Your task to perform on an android device: What's the weather? Image 0: 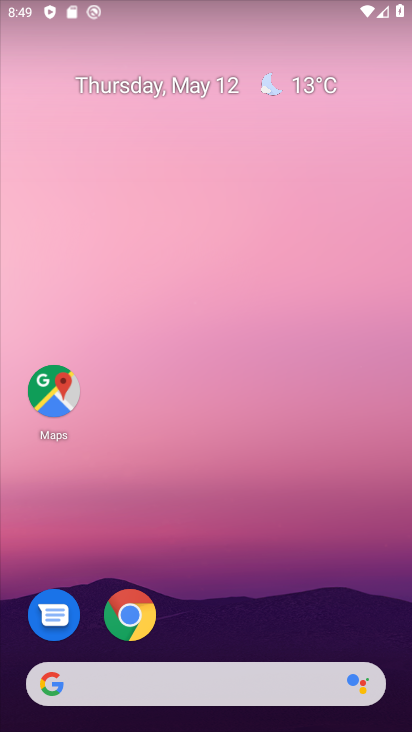
Step 0: drag from (198, 683) to (179, 5)
Your task to perform on an android device: What's the weather? Image 1: 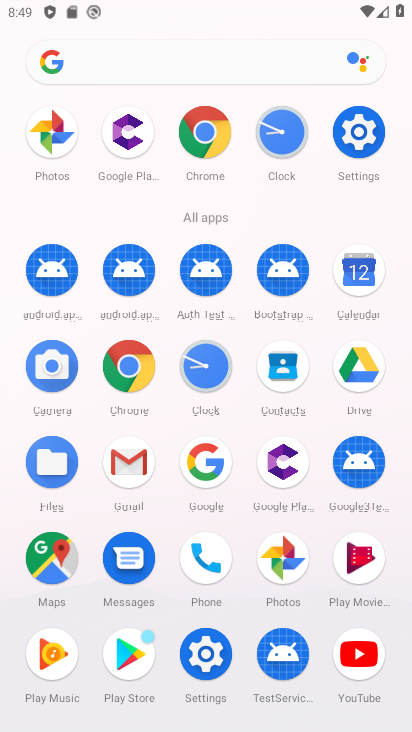
Step 1: click (196, 468)
Your task to perform on an android device: What's the weather? Image 2: 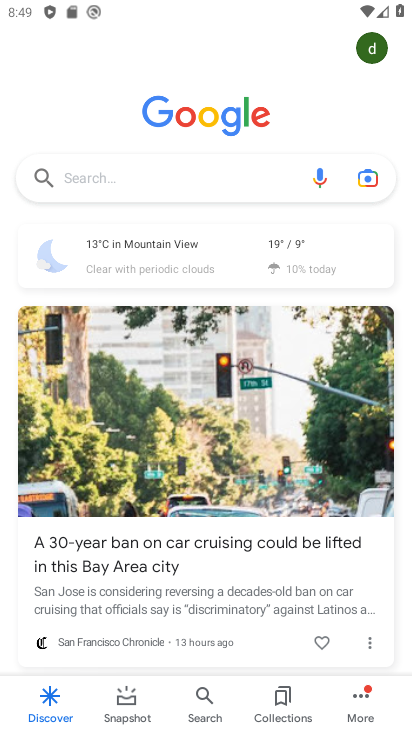
Step 2: click (169, 268)
Your task to perform on an android device: What's the weather? Image 3: 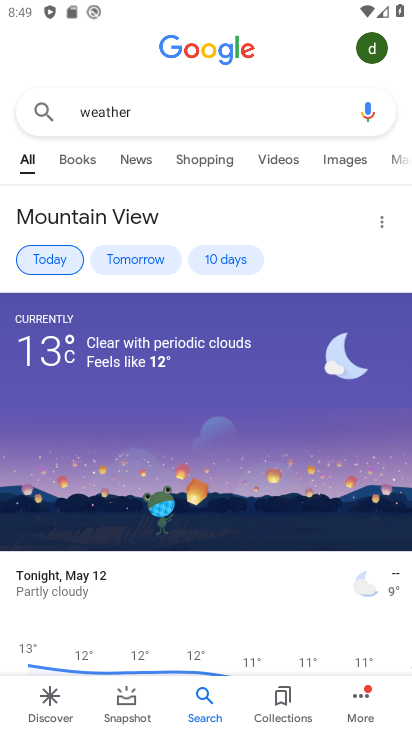
Step 3: task complete